Your task to perform on an android device: Search for the best rated 4K TV on Best Buy. Image 0: 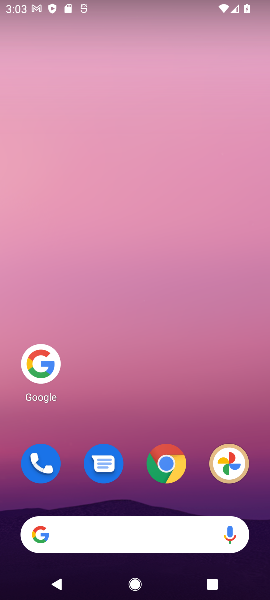
Step 0: click (37, 363)
Your task to perform on an android device: Search for the best rated 4K TV on Best Buy. Image 1: 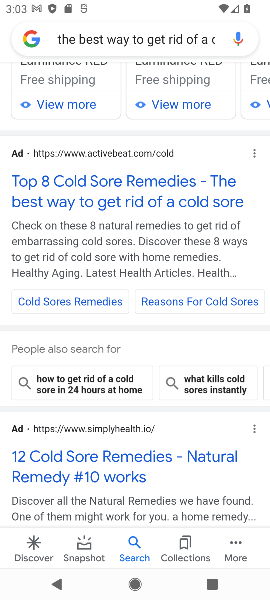
Step 1: click (207, 43)
Your task to perform on an android device: Search for the best rated 4K TV on Best Buy. Image 2: 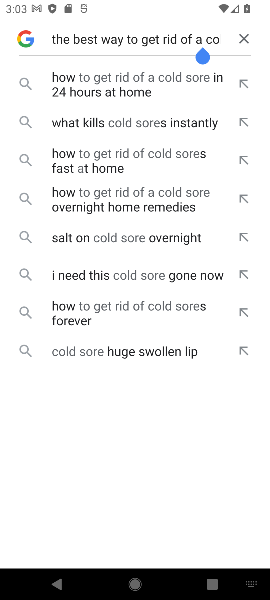
Step 2: click (246, 33)
Your task to perform on an android device: Search for the best rated 4K TV on Best Buy. Image 3: 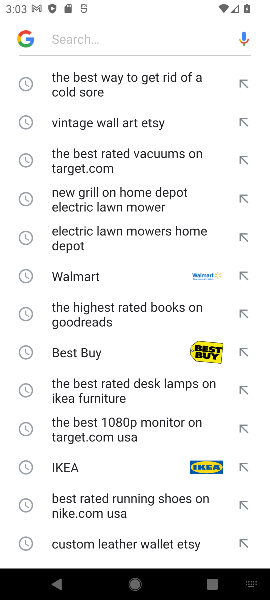
Step 3: click (76, 34)
Your task to perform on an android device: Search for the best rated 4K TV on Best Buy. Image 4: 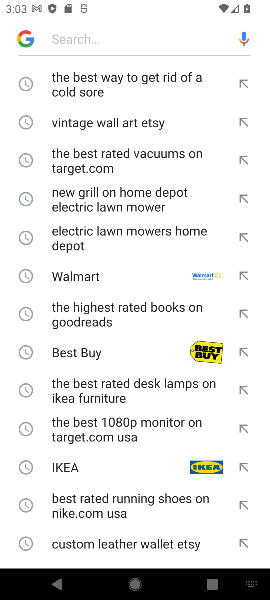
Step 4: type "the best rated 4K TV on Best Buy "
Your task to perform on an android device: Search for the best rated 4K TV on Best Buy. Image 5: 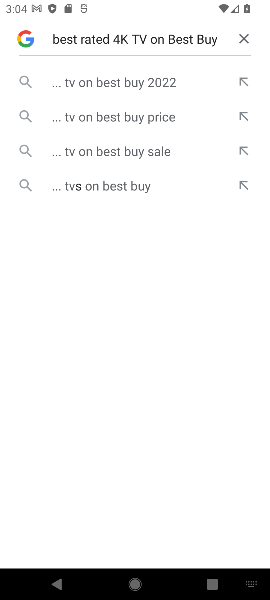
Step 5: click (112, 79)
Your task to perform on an android device: Search for the best rated 4K TV on Best Buy. Image 6: 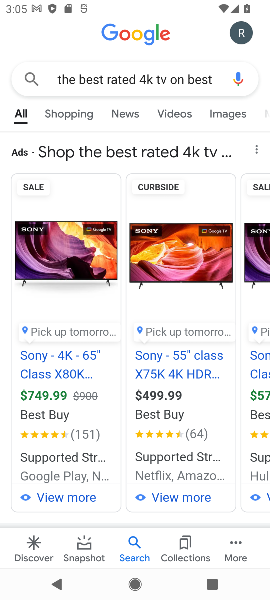
Step 6: task complete